Your task to perform on an android device: Is it going to rain this weekend? Image 0: 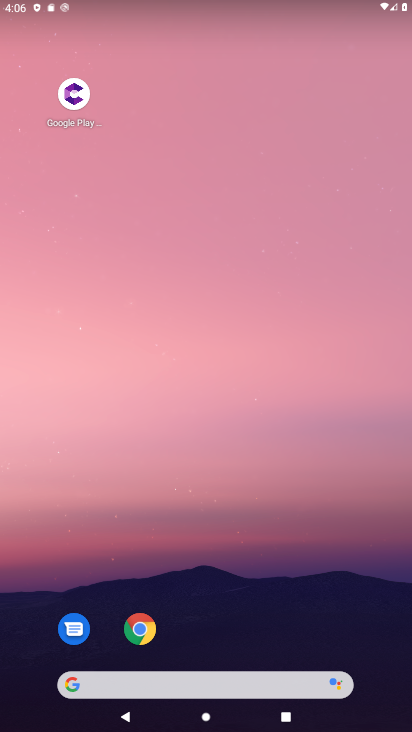
Step 0: drag from (176, 658) to (140, 165)
Your task to perform on an android device: Is it going to rain this weekend? Image 1: 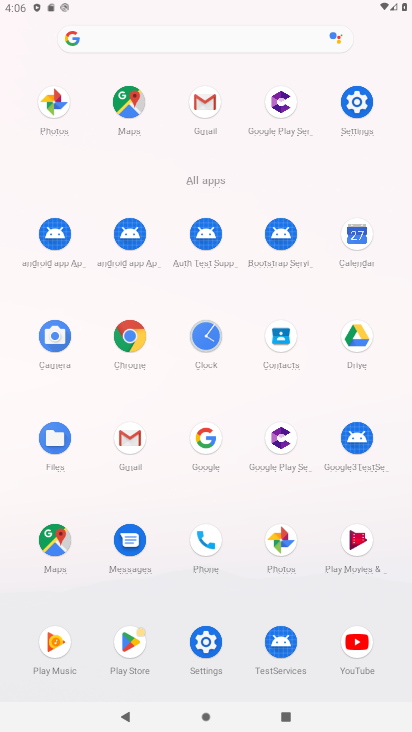
Step 1: click (201, 436)
Your task to perform on an android device: Is it going to rain this weekend? Image 2: 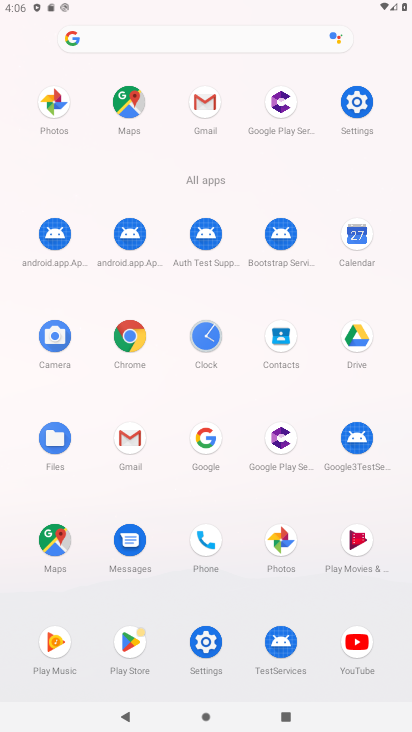
Step 2: click (213, 438)
Your task to perform on an android device: Is it going to rain this weekend? Image 3: 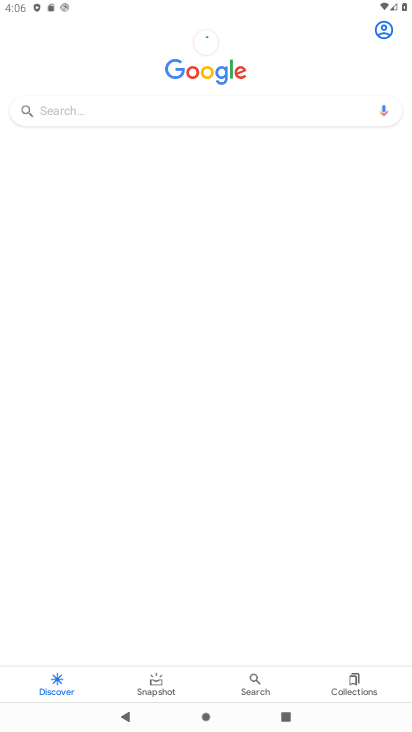
Step 3: click (194, 113)
Your task to perform on an android device: Is it going to rain this weekend? Image 4: 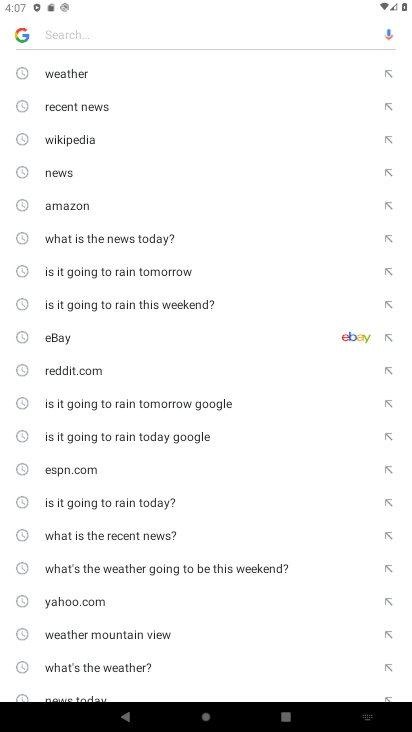
Step 4: click (56, 68)
Your task to perform on an android device: Is it going to rain this weekend? Image 5: 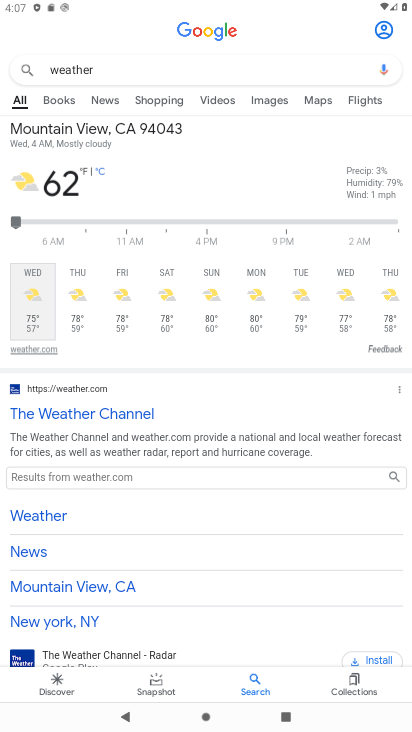
Step 5: task complete